Your task to perform on an android device: Show me popular videos on Youtube Image 0: 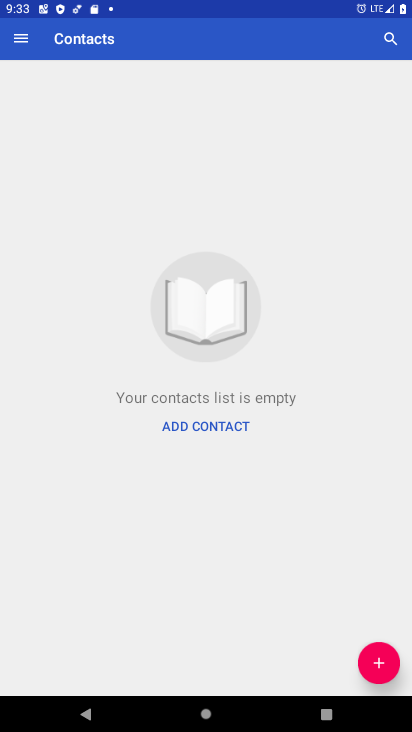
Step 0: press home button
Your task to perform on an android device: Show me popular videos on Youtube Image 1: 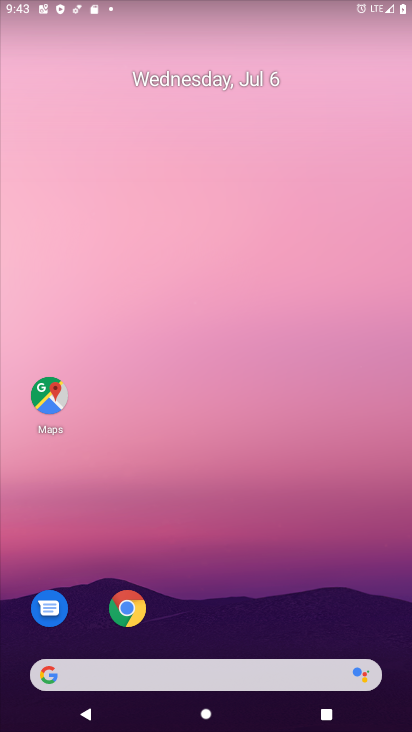
Step 1: drag from (366, 625) to (297, 70)
Your task to perform on an android device: Show me popular videos on Youtube Image 2: 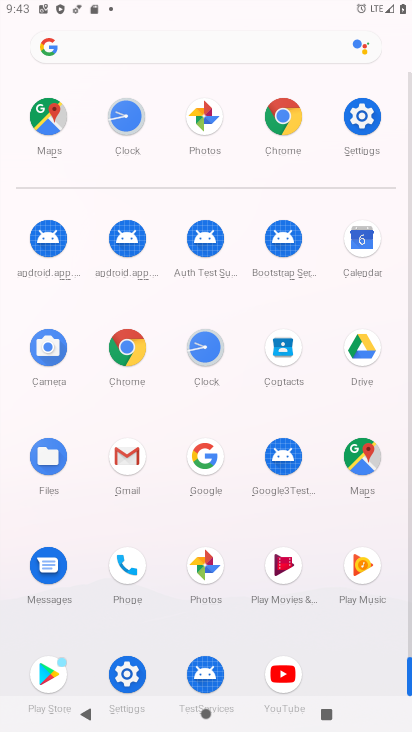
Step 2: drag from (390, 96) to (83, 30)
Your task to perform on an android device: Show me popular videos on Youtube Image 3: 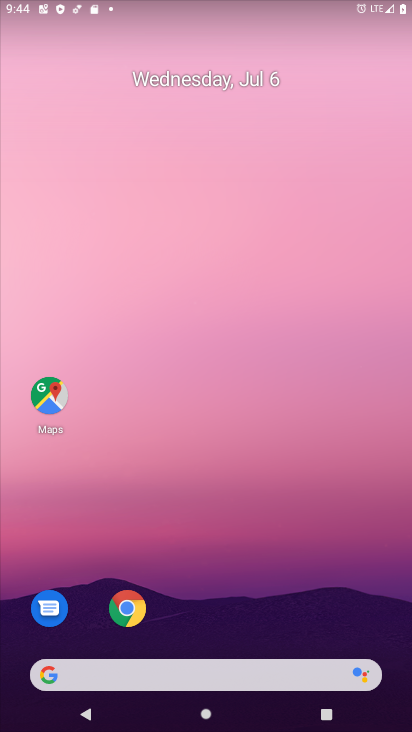
Step 3: click (261, 688)
Your task to perform on an android device: Show me popular videos on Youtube Image 4: 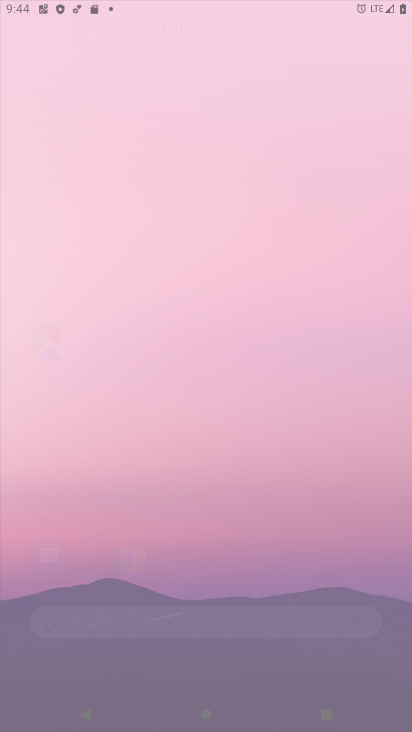
Step 4: drag from (288, 598) to (274, 82)
Your task to perform on an android device: Show me popular videos on Youtube Image 5: 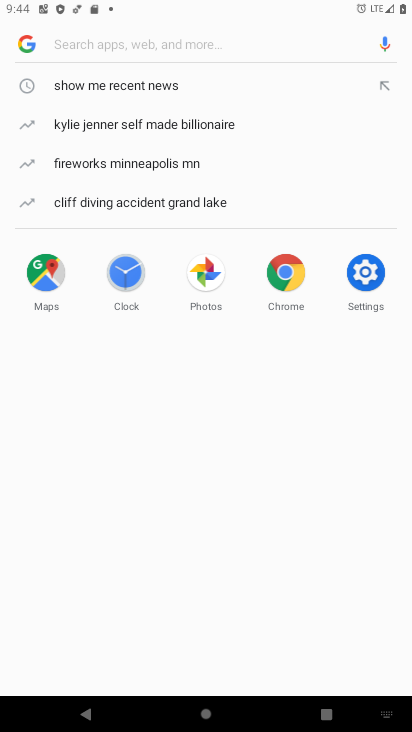
Step 5: press home button
Your task to perform on an android device: Show me popular videos on Youtube Image 6: 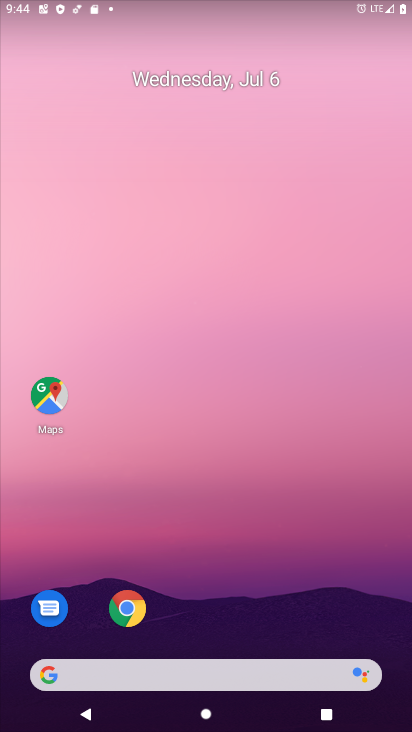
Step 6: drag from (351, 609) to (174, 4)
Your task to perform on an android device: Show me popular videos on Youtube Image 7: 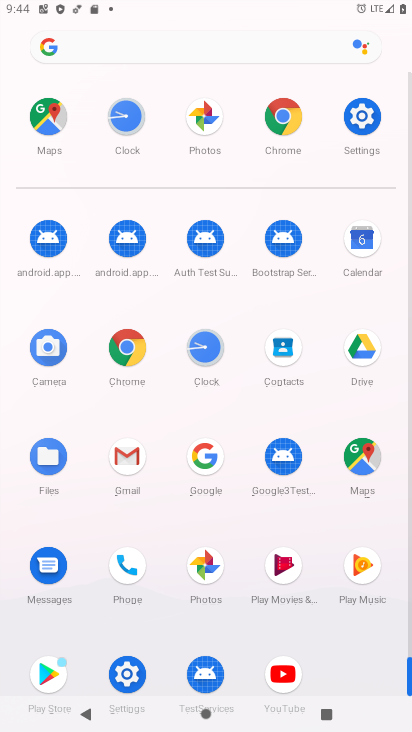
Step 7: click (285, 682)
Your task to perform on an android device: Show me popular videos on Youtube Image 8: 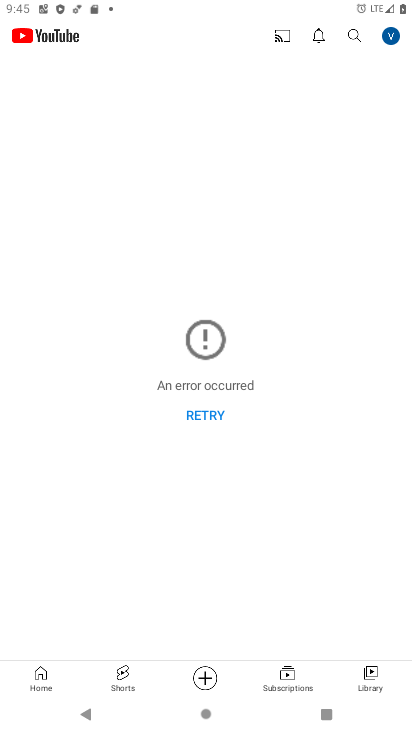
Step 8: task complete